Your task to perform on an android device: Go to Android settings Image 0: 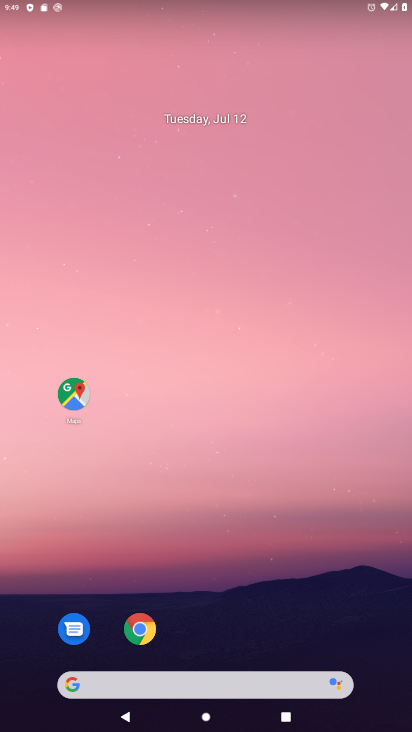
Step 0: drag from (375, 665) to (333, 25)
Your task to perform on an android device: Go to Android settings Image 1: 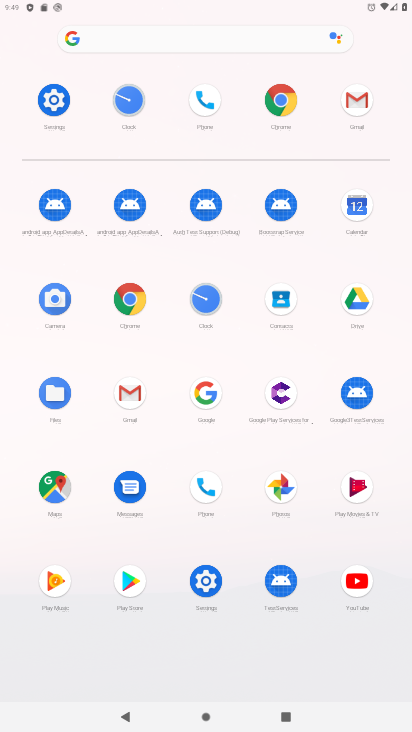
Step 1: click (206, 583)
Your task to perform on an android device: Go to Android settings Image 2: 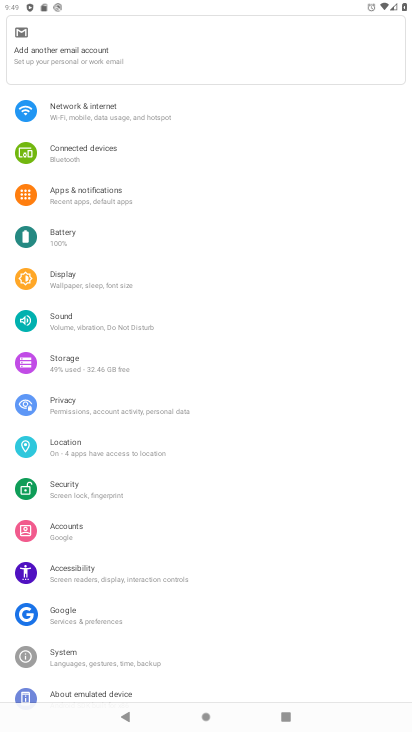
Step 2: drag from (207, 679) to (216, 186)
Your task to perform on an android device: Go to Android settings Image 3: 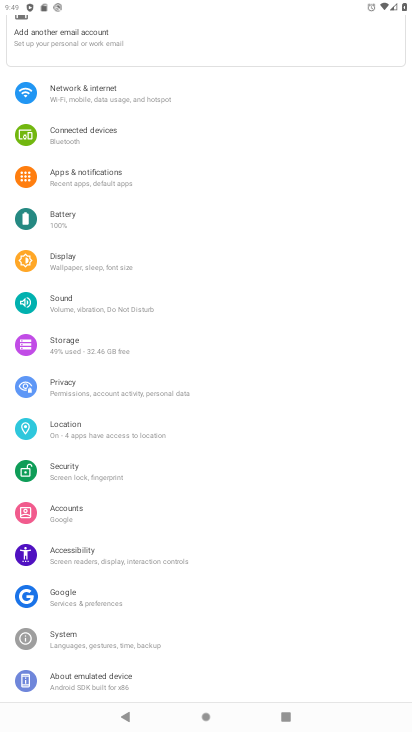
Step 3: click (81, 680)
Your task to perform on an android device: Go to Android settings Image 4: 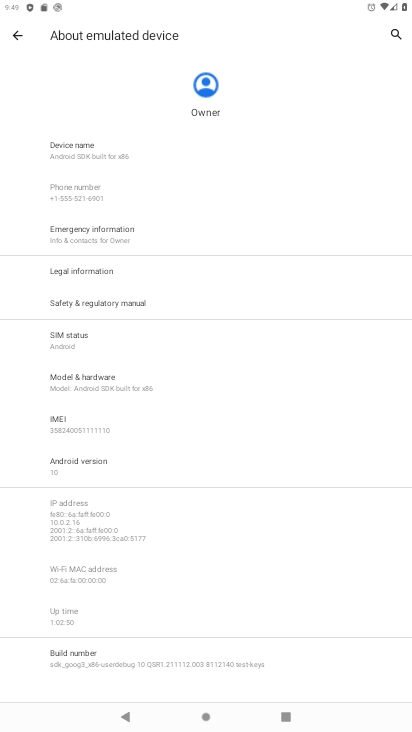
Step 4: task complete